Your task to perform on an android device: remove spam from my inbox in the gmail app Image 0: 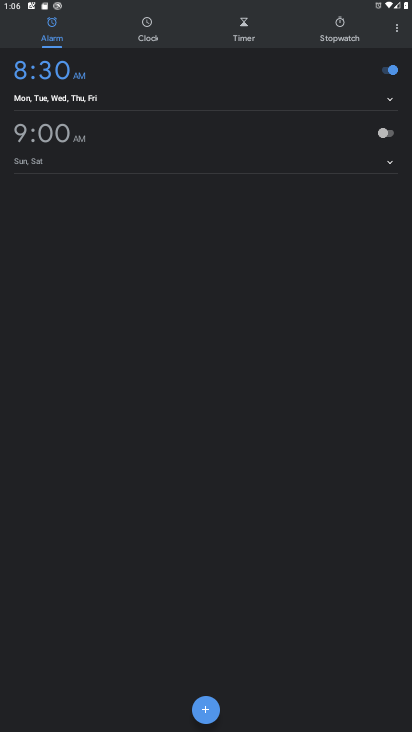
Step 0: press home button
Your task to perform on an android device: remove spam from my inbox in the gmail app Image 1: 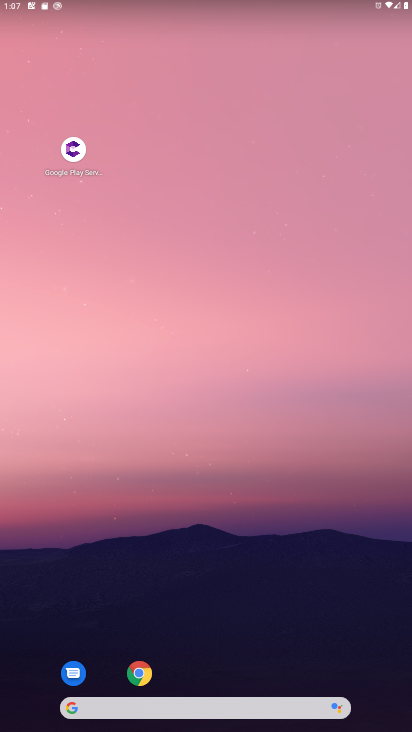
Step 1: drag from (202, 644) to (195, 179)
Your task to perform on an android device: remove spam from my inbox in the gmail app Image 2: 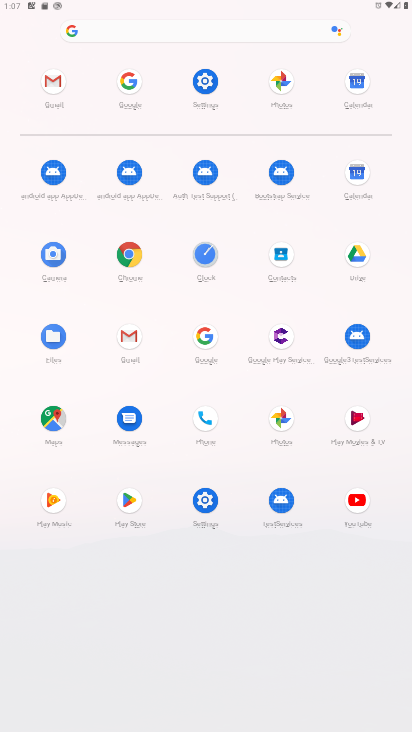
Step 2: click (33, 84)
Your task to perform on an android device: remove spam from my inbox in the gmail app Image 3: 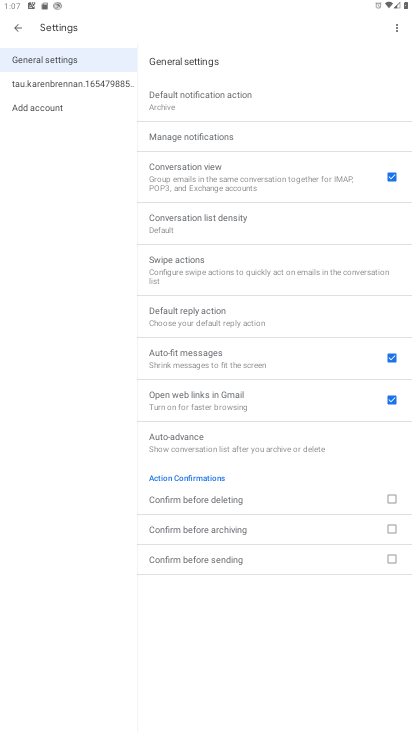
Step 3: click (14, 26)
Your task to perform on an android device: remove spam from my inbox in the gmail app Image 4: 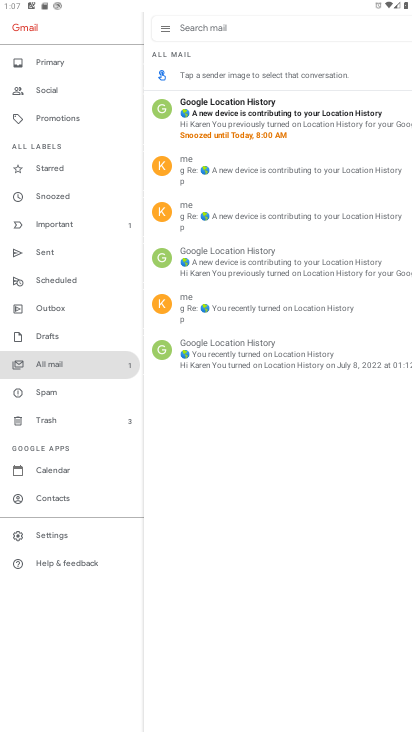
Step 4: click (58, 391)
Your task to perform on an android device: remove spam from my inbox in the gmail app Image 5: 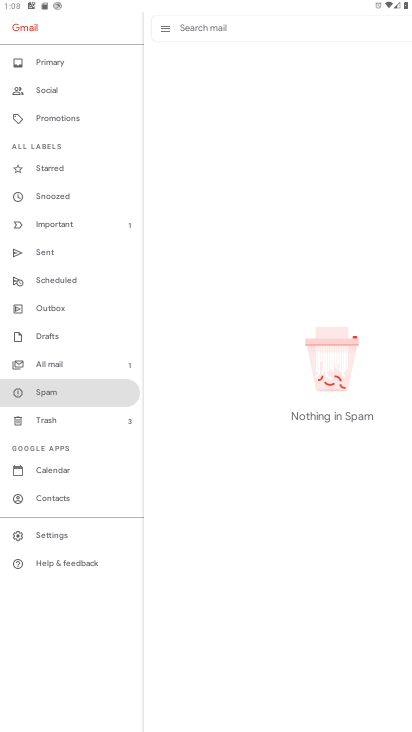
Step 5: task complete